Your task to perform on an android device: Open Youtube and go to the subscriptions tab Image 0: 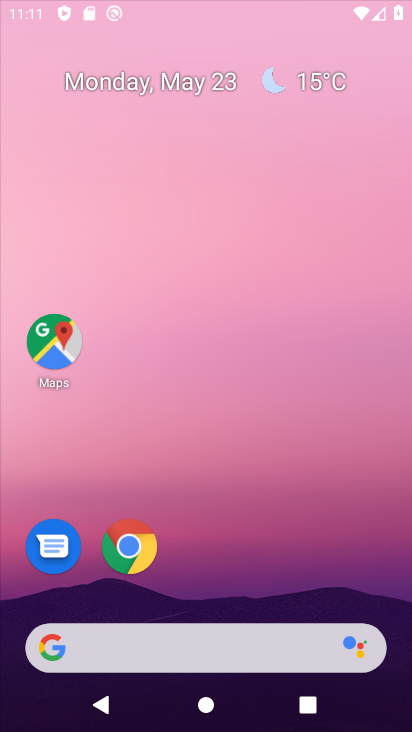
Step 0: click (203, 32)
Your task to perform on an android device: Open Youtube and go to the subscriptions tab Image 1: 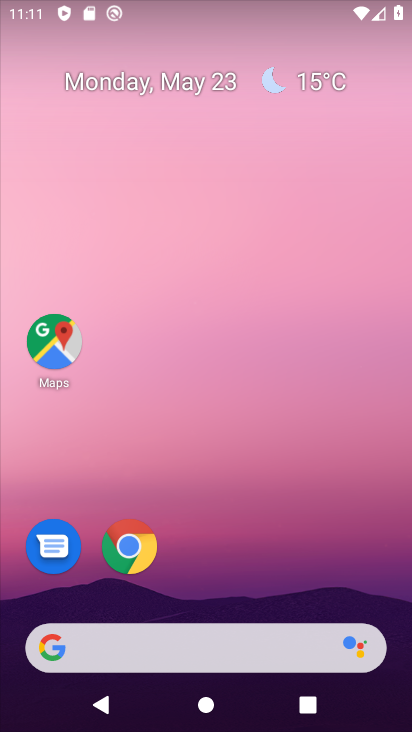
Step 1: drag from (213, 578) to (267, 14)
Your task to perform on an android device: Open Youtube and go to the subscriptions tab Image 2: 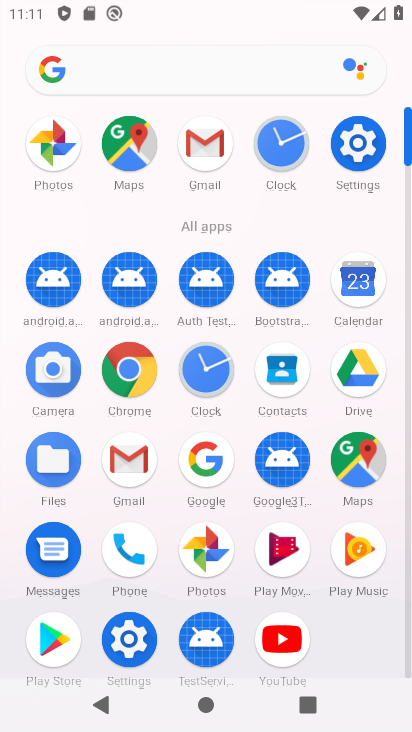
Step 2: click (256, 634)
Your task to perform on an android device: Open Youtube and go to the subscriptions tab Image 3: 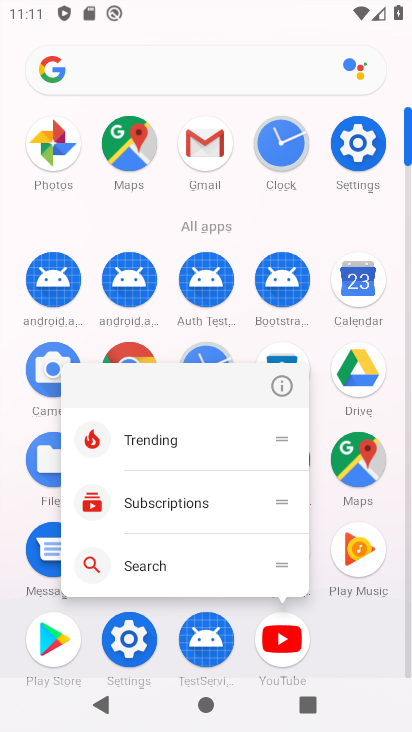
Step 3: click (274, 383)
Your task to perform on an android device: Open Youtube and go to the subscriptions tab Image 4: 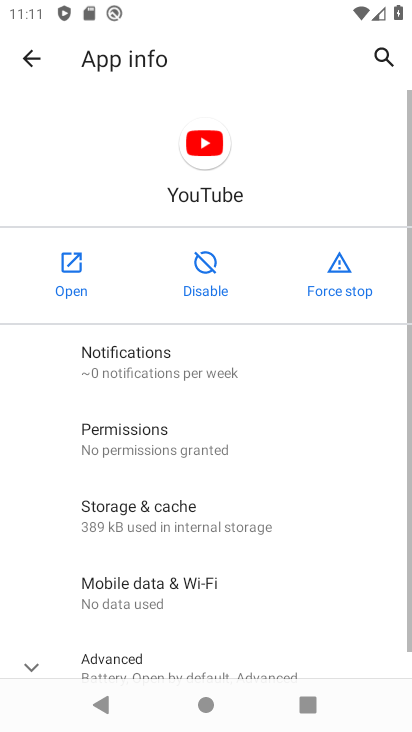
Step 4: click (63, 285)
Your task to perform on an android device: Open Youtube and go to the subscriptions tab Image 5: 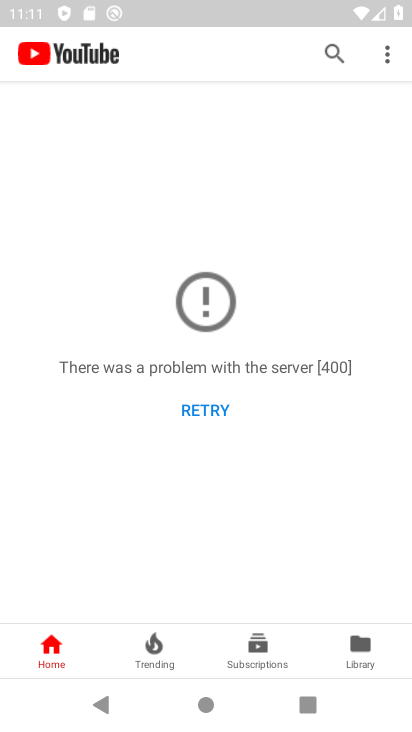
Step 5: click (239, 641)
Your task to perform on an android device: Open Youtube and go to the subscriptions tab Image 6: 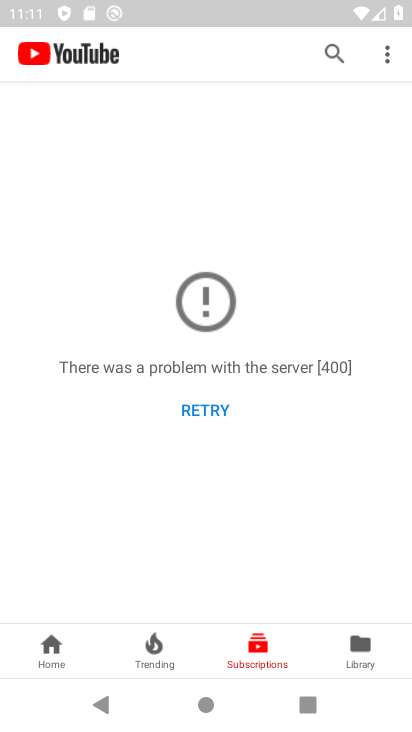
Step 6: drag from (248, 501) to (231, 226)
Your task to perform on an android device: Open Youtube and go to the subscriptions tab Image 7: 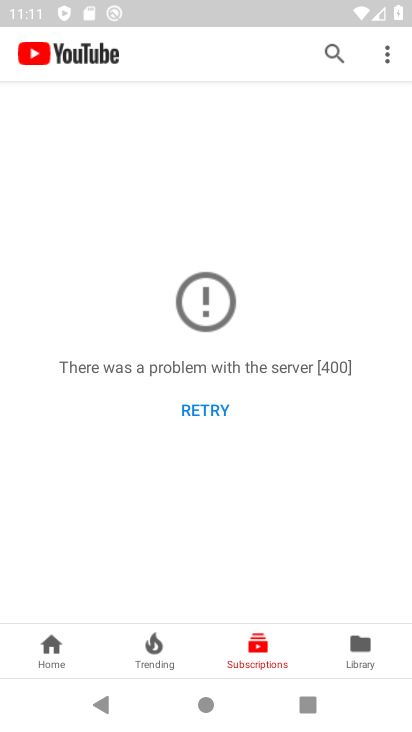
Step 7: click (205, 396)
Your task to perform on an android device: Open Youtube and go to the subscriptions tab Image 8: 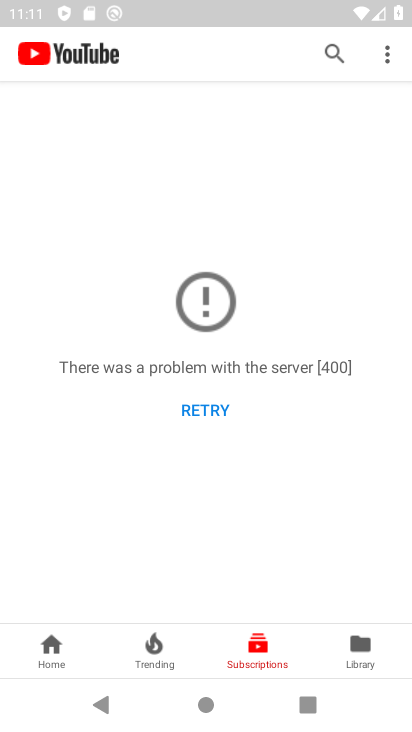
Step 8: task complete